Your task to perform on an android device: turn on wifi Image 0: 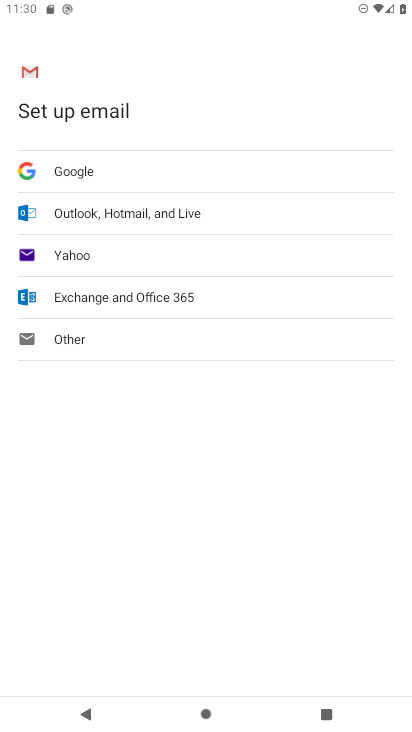
Step 0: press home button
Your task to perform on an android device: turn on wifi Image 1: 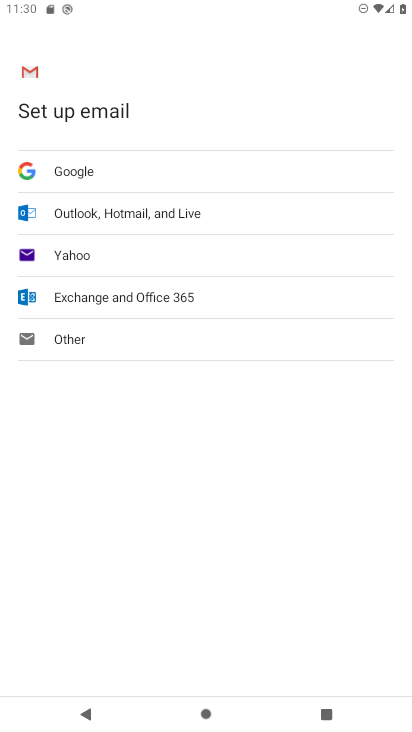
Step 1: press home button
Your task to perform on an android device: turn on wifi Image 2: 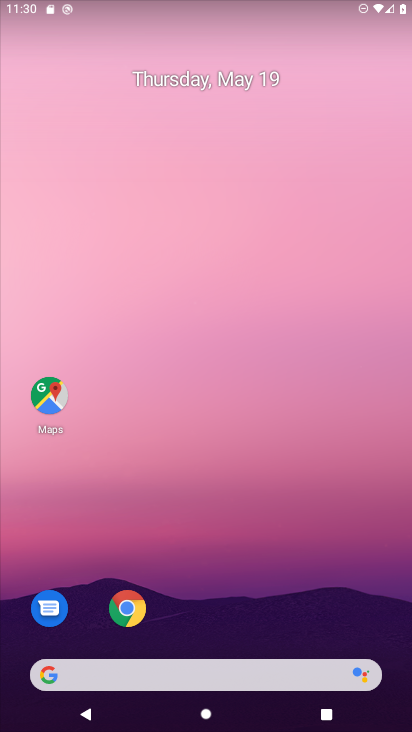
Step 2: drag from (229, 4) to (279, 690)
Your task to perform on an android device: turn on wifi Image 3: 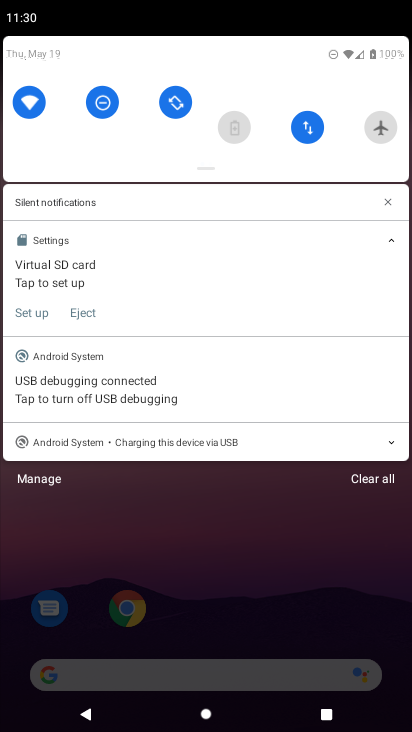
Step 3: click (279, 690)
Your task to perform on an android device: turn on wifi Image 4: 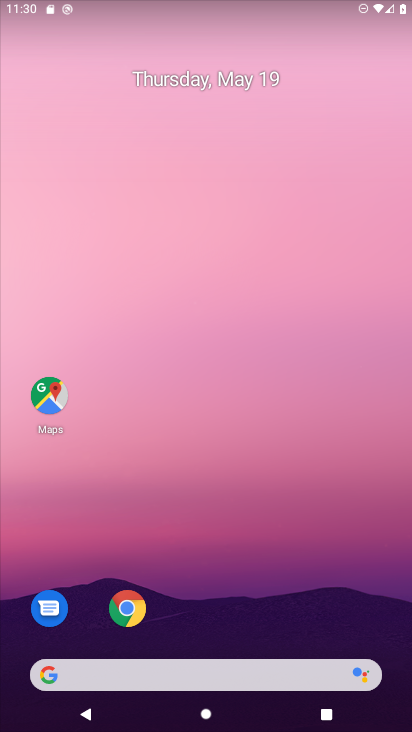
Step 4: task complete